Your task to perform on an android device: all mails in gmail Image 0: 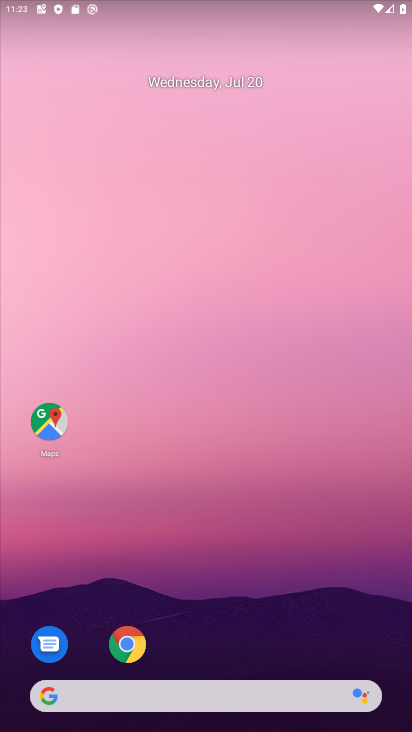
Step 0: drag from (174, 684) to (202, 237)
Your task to perform on an android device: all mails in gmail Image 1: 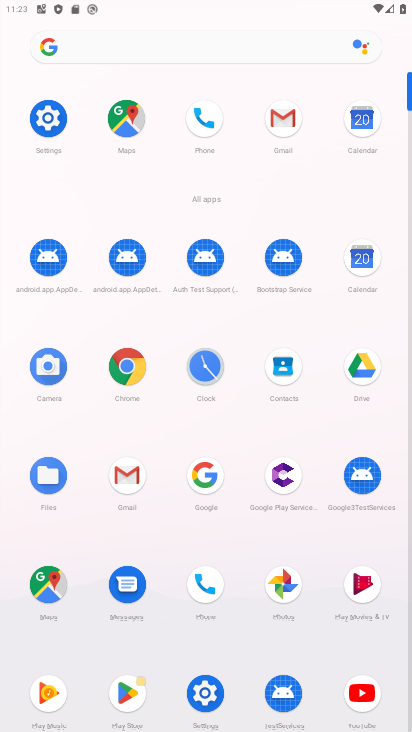
Step 1: click (128, 473)
Your task to perform on an android device: all mails in gmail Image 2: 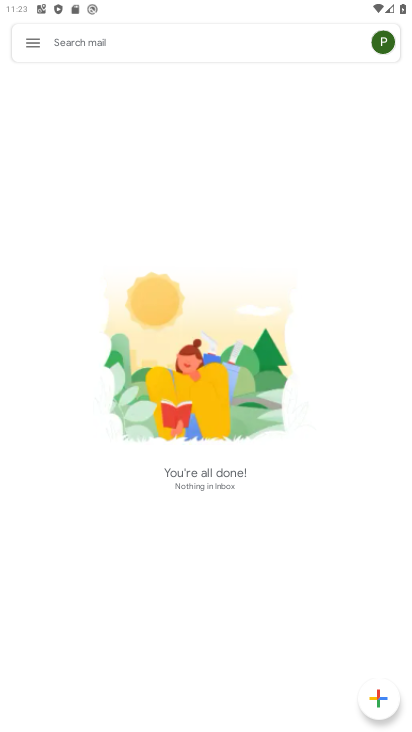
Step 2: click (24, 41)
Your task to perform on an android device: all mails in gmail Image 3: 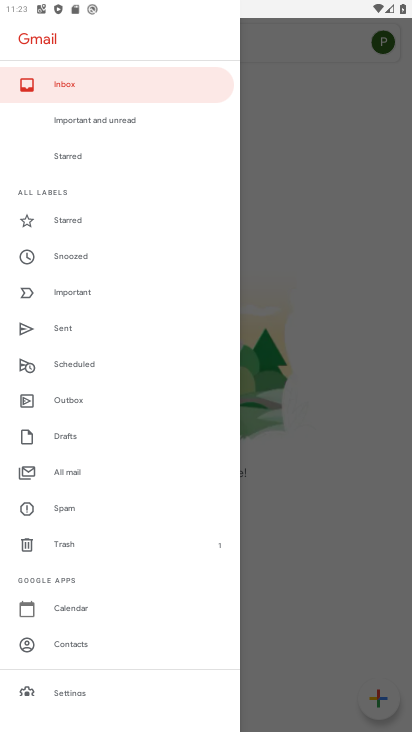
Step 3: click (83, 457)
Your task to perform on an android device: all mails in gmail Image 4: 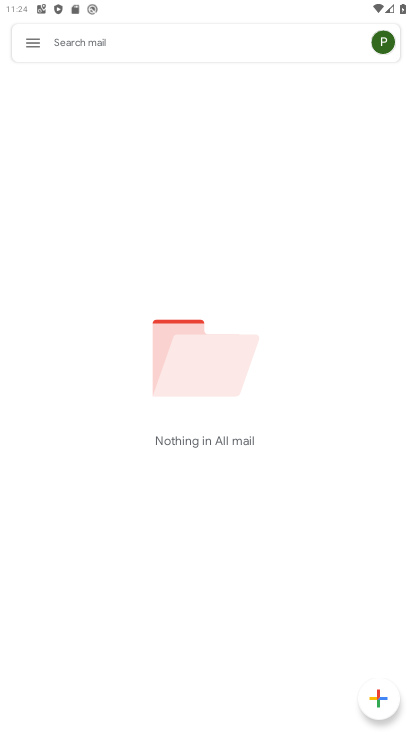
Step 4: task complete